Your task to perform on an android device: What's the weather today? Image 0: 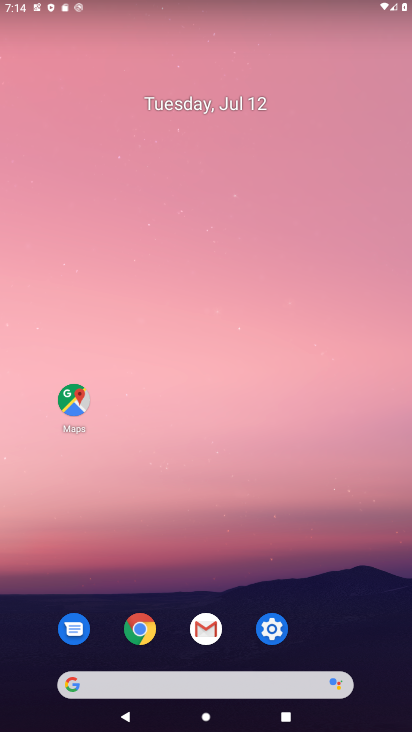
Step 0: drag from (213, 692) to (315, 140)
Your task to perform on an android device: What's the weather today? Image 1: 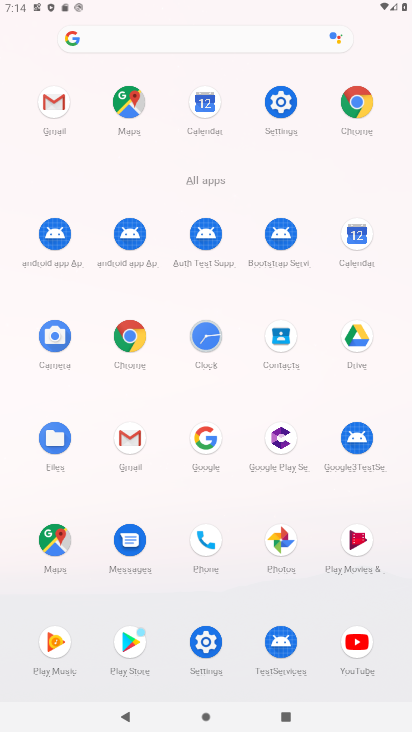
Step 1: click (120, 37)
Your task to perform on an android device: What's the weather today? Image 2: 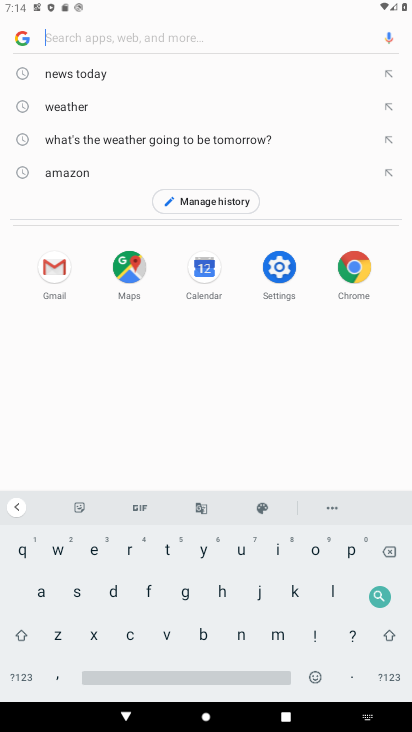
Step 2: click (62, 533)
Your task to perform on an android device: What's the weather today? Image 3: 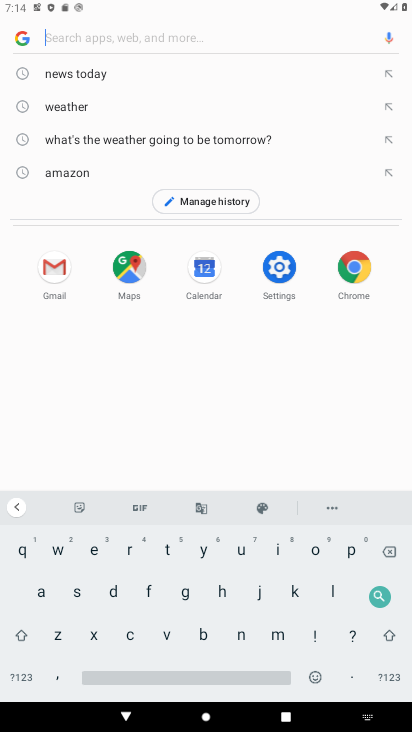
Step 3: click (101, 99)
Your task to perform on an android device: What's the weather today? Image 4: 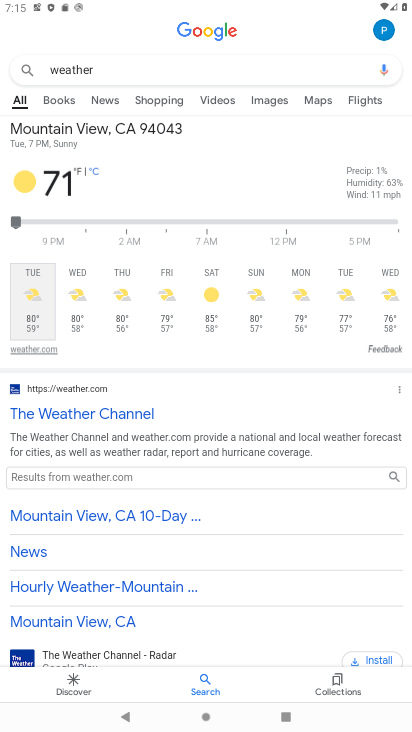
Step 4: task complete